Your task to perform on an android device: uninstall "VLC for Android" Image 0: 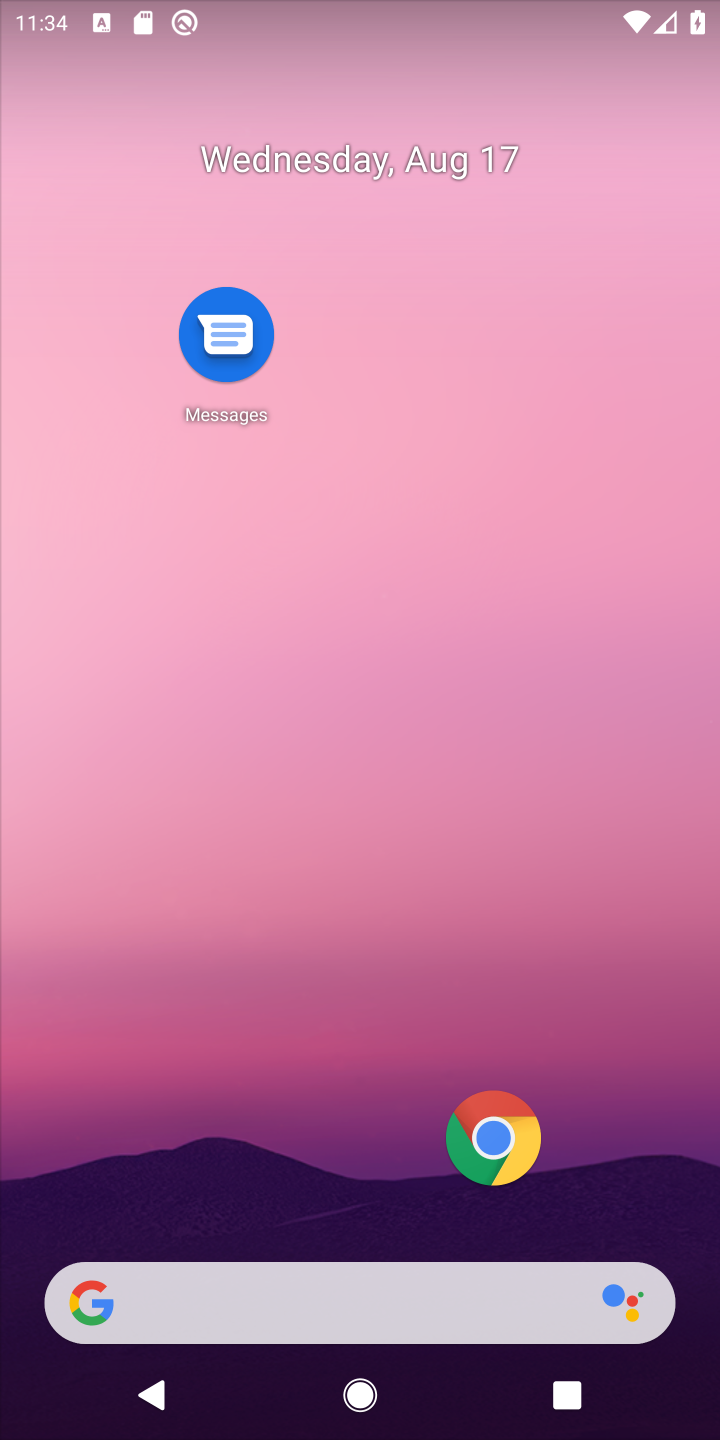
Step 0: drag from (403, 933) to (446, 492)
Your task to perform on an android device: uninstall "VLC for Android" Image 1: 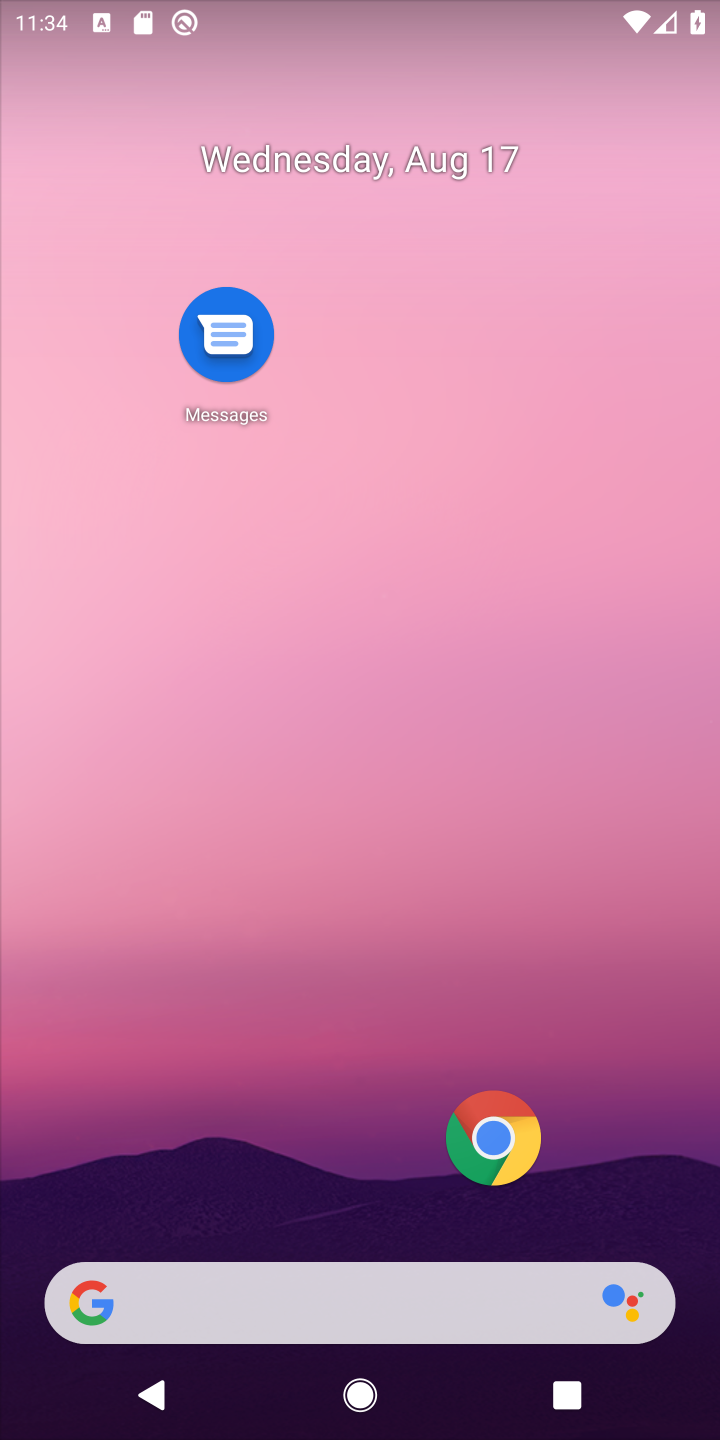
Step 1: drag from (355, 1047) to (411, 374)
Your task to perform on an android device: uninstall "VLC for Android" Image 2: 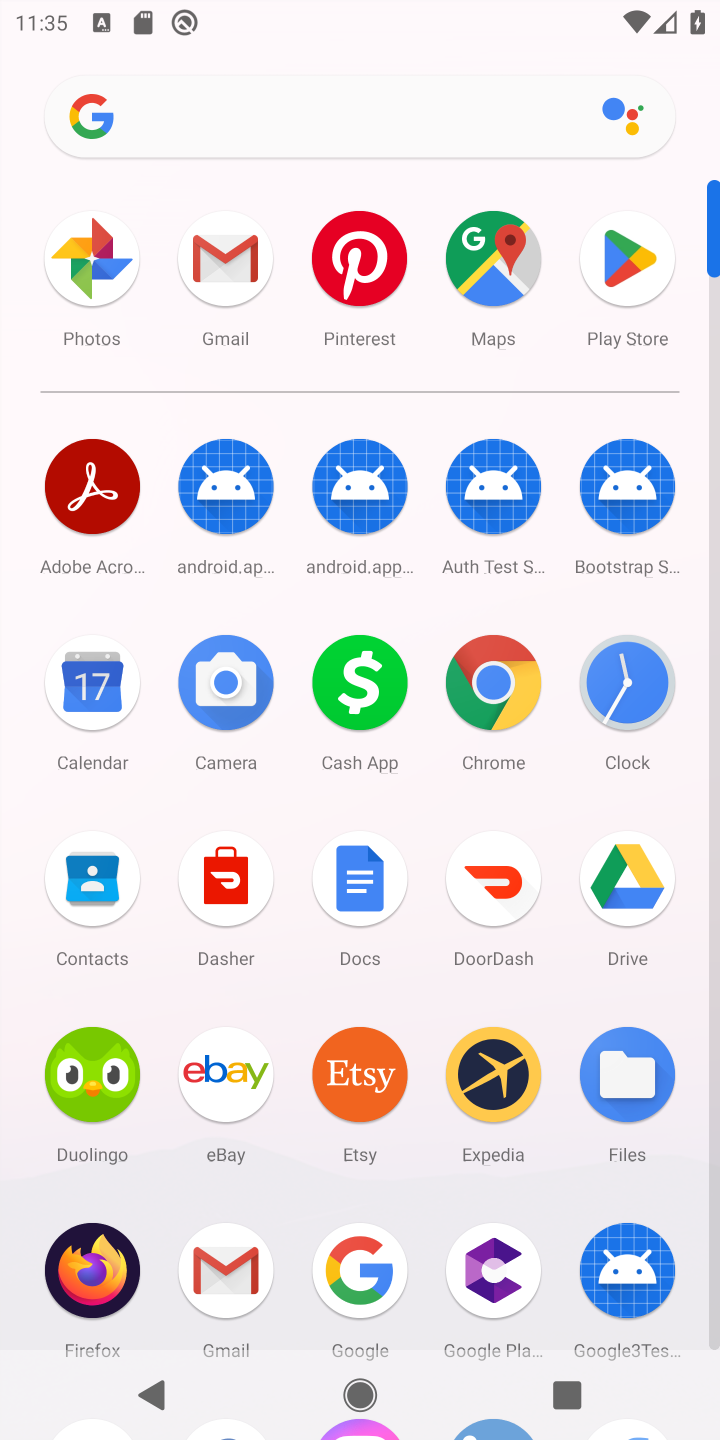
Step 2: click (623, 273)
Your task to perform on an android device: uninstall "VLC for Android" Image 3: 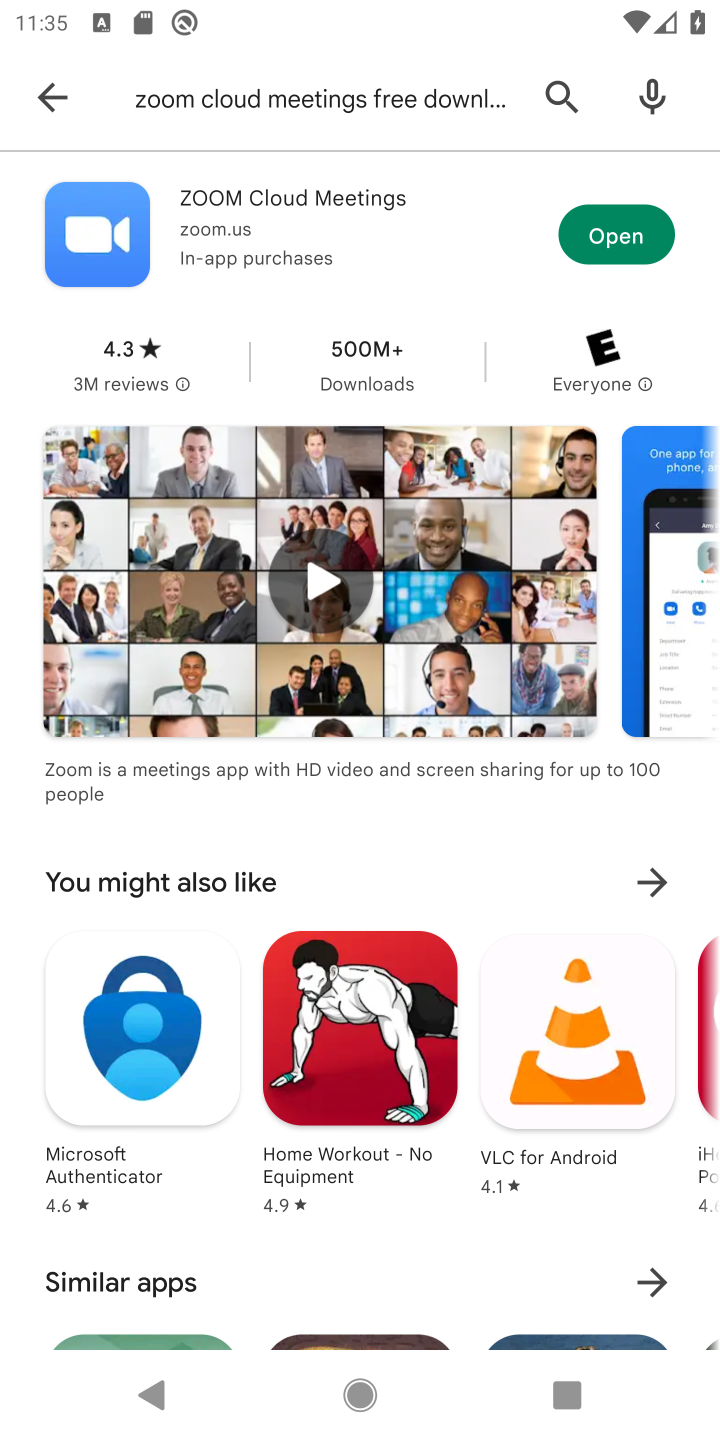
Step 3: click (48, 100)
Your task to perform on an android device: uninstall "VLC for Android" Image 4: 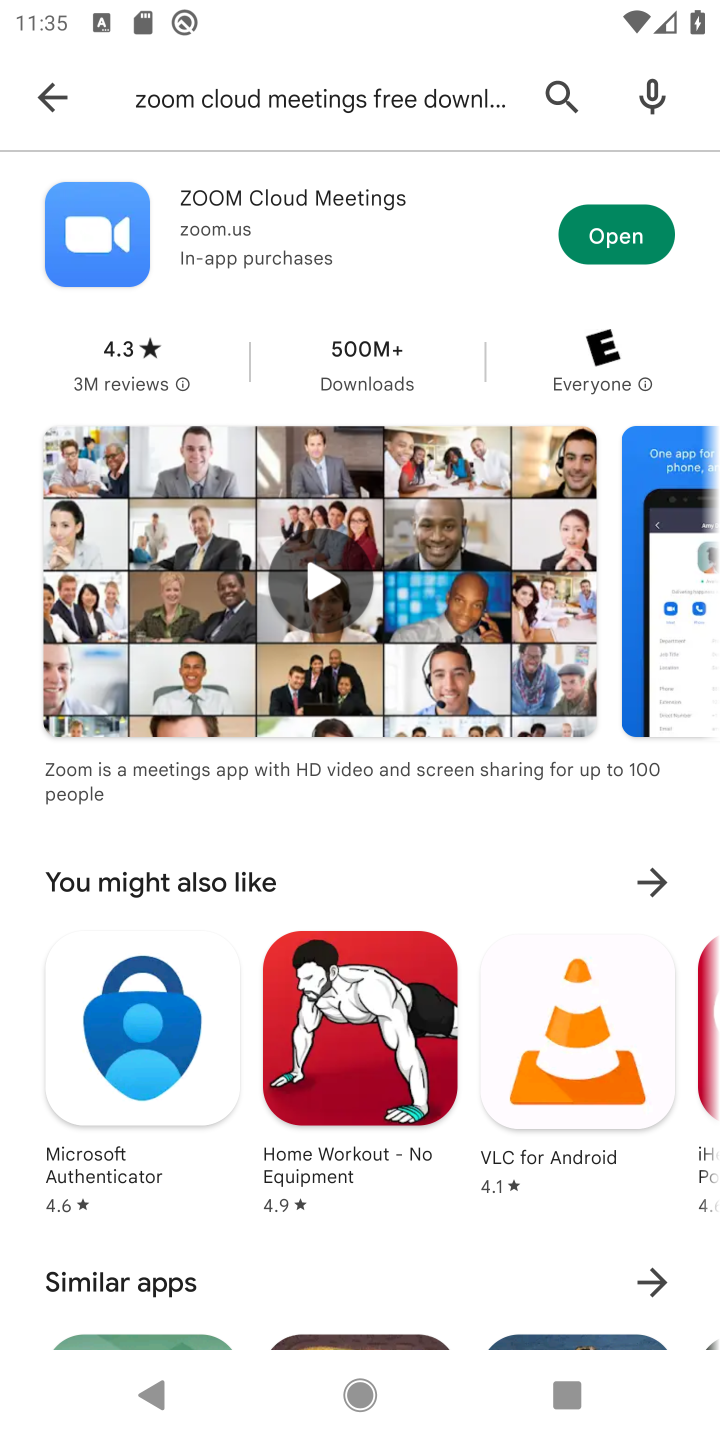
Step 4: click (570, 104)
Your task to perform on an android device: uninstall "VLC for Android" Image 5: 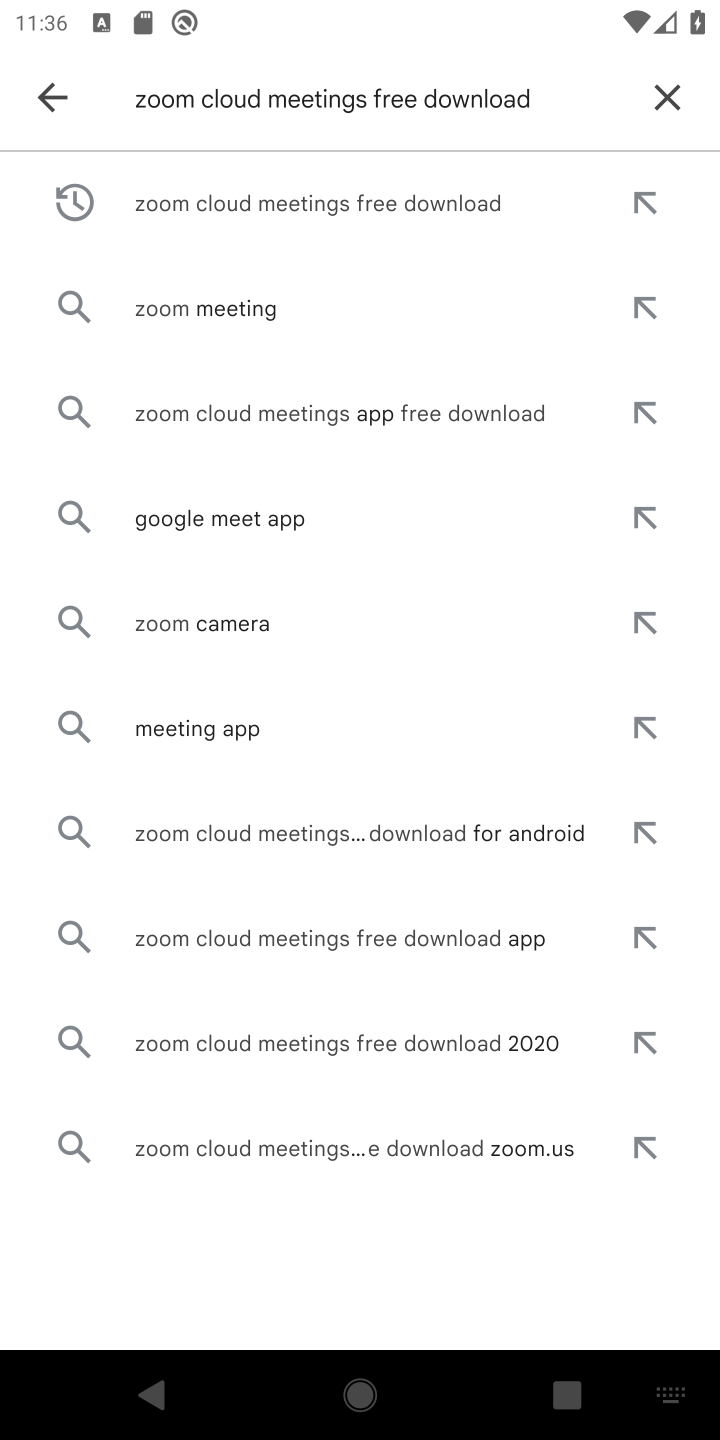
Step 5: click (662, 111)
Your task to perform on an android device: uninstall "VLC for Android" Image 6: 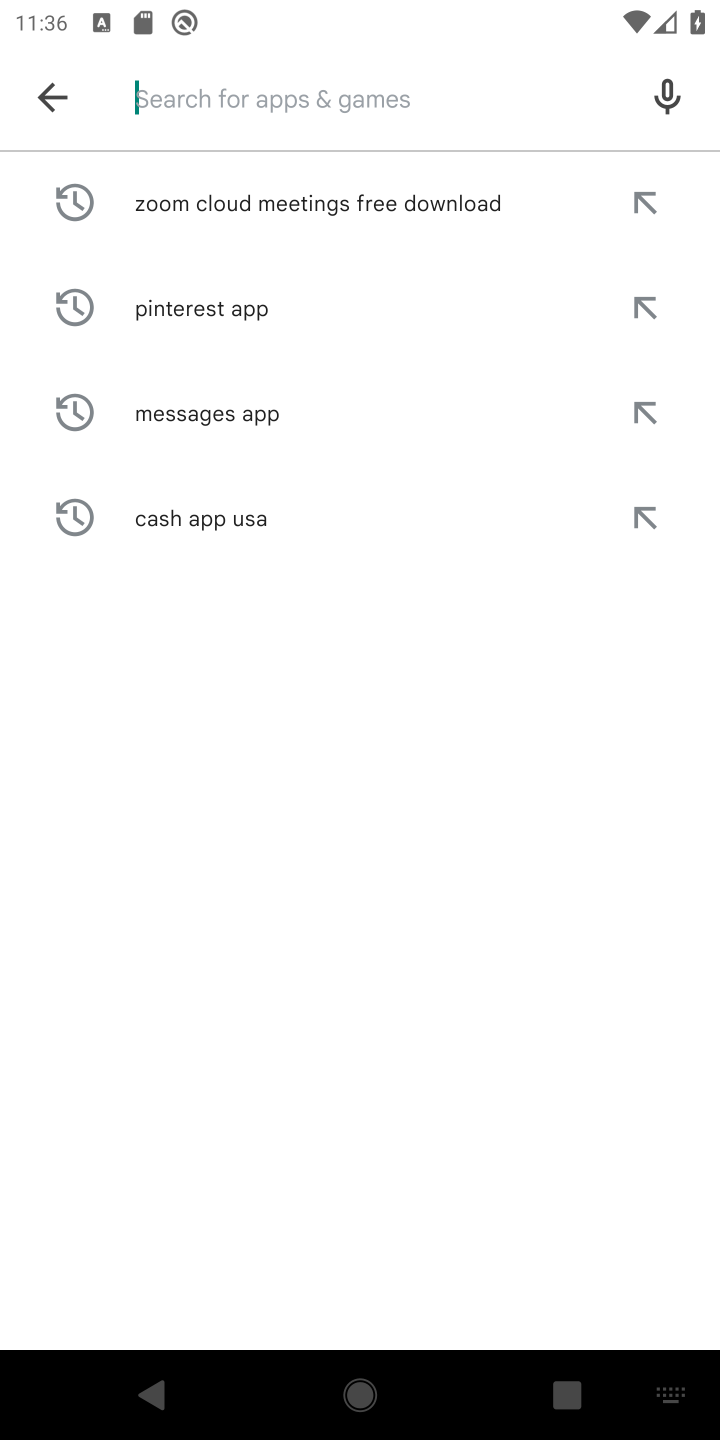
Step 6: click (296, 104)
Your task to perform on an android device: uninstall "VLC for Android" Image 7: 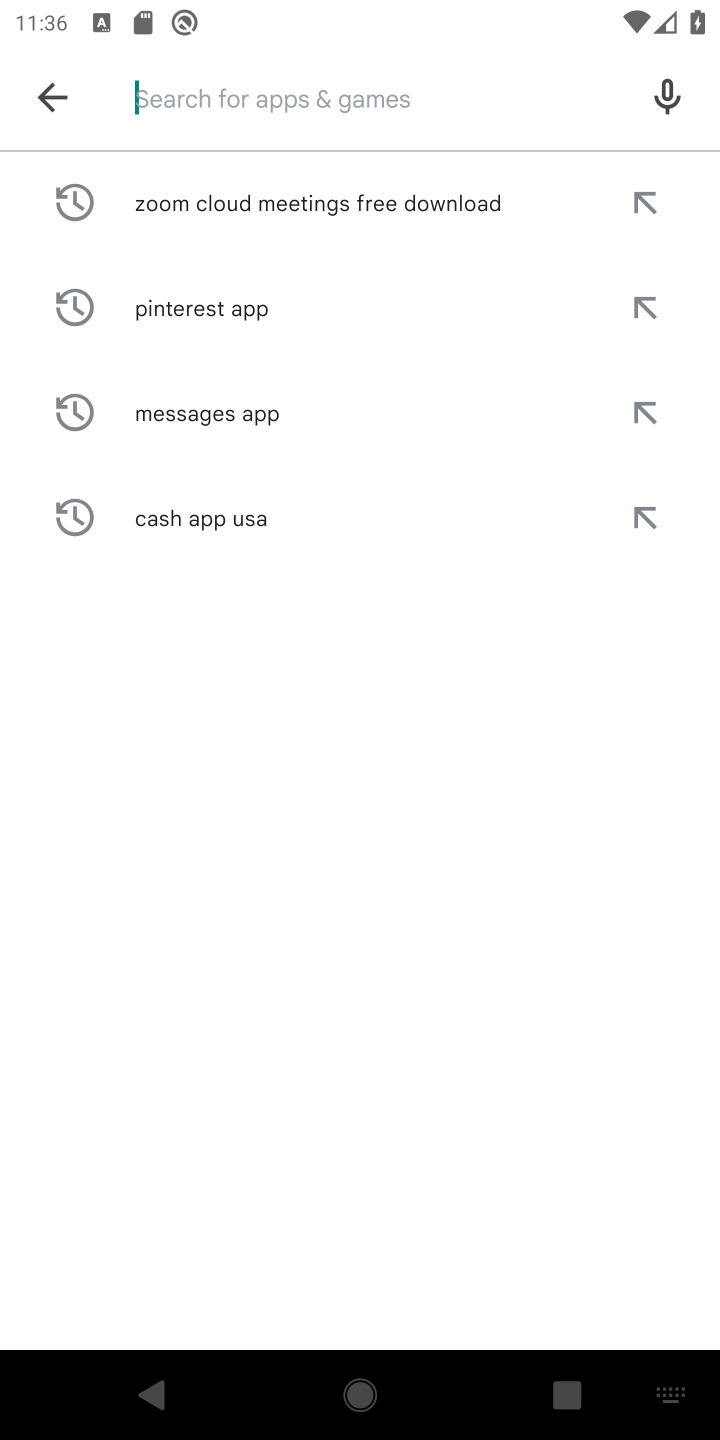
Step 7: type ""VLC for Android "
Your task to perform on an android device: uninstall "VLC for Android" Image 8: 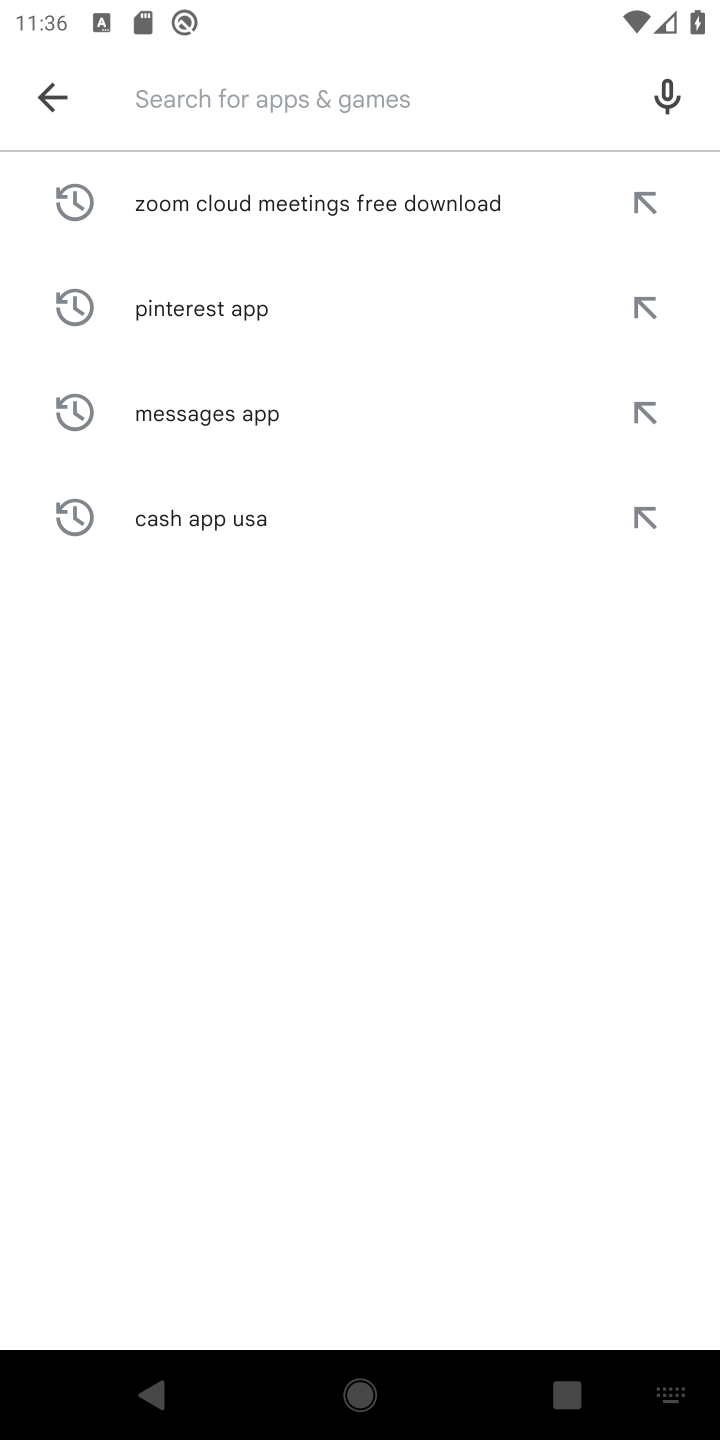
Step 8: click (371, 76)
Your task to perform on an android device: uninstall "VLC for Android" Image 9: 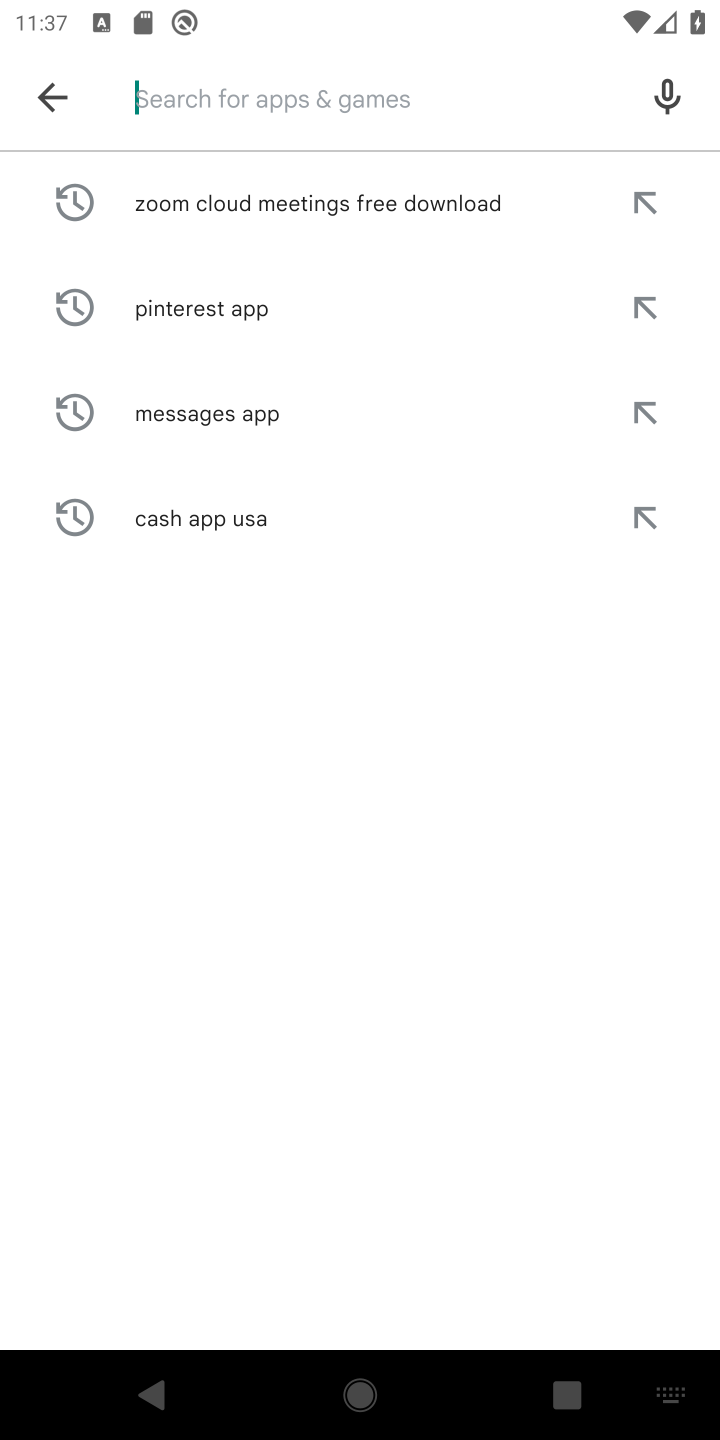
Step 9: type "vlc "
Your task to perform on an android device: uninstall "VLC for Android" Image 10: 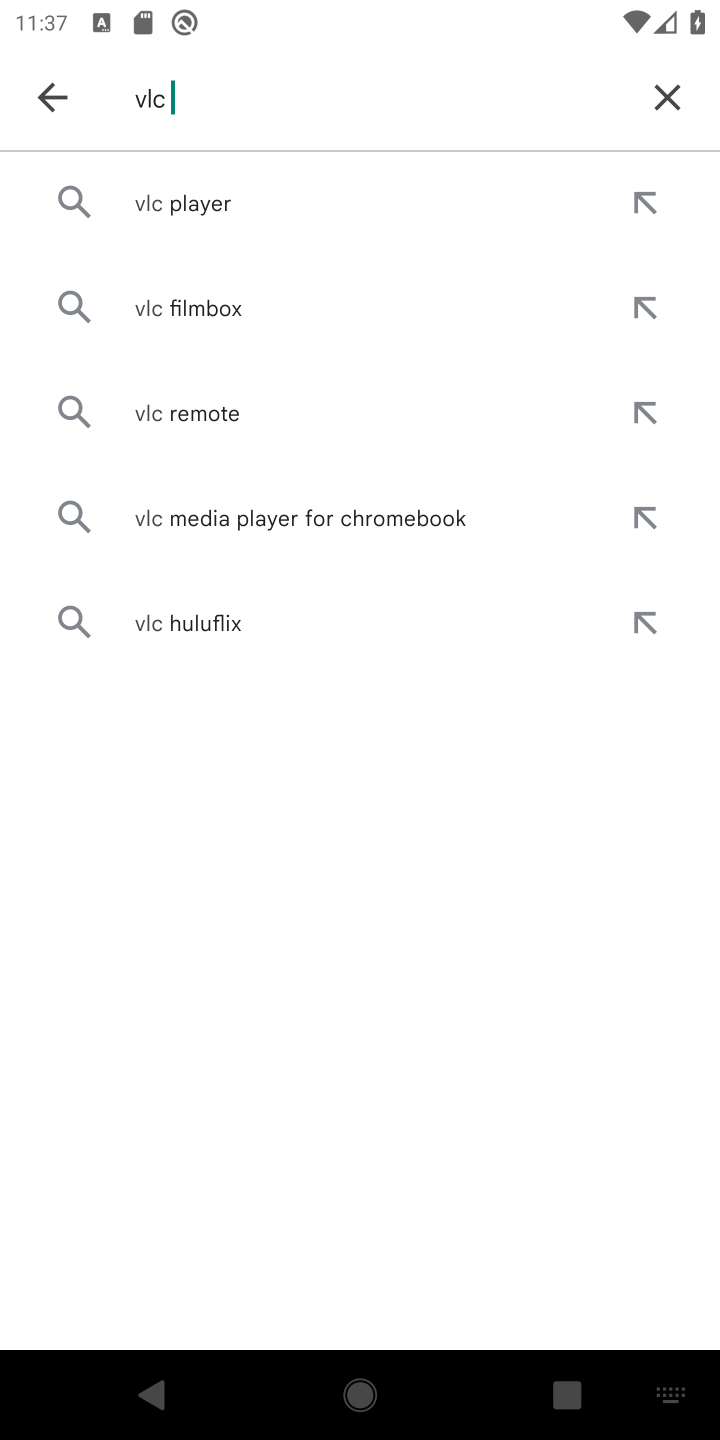
Step 10: click (247, 200)
Your task to perform on an android device: uninstall "VLC for Android" Image 11: 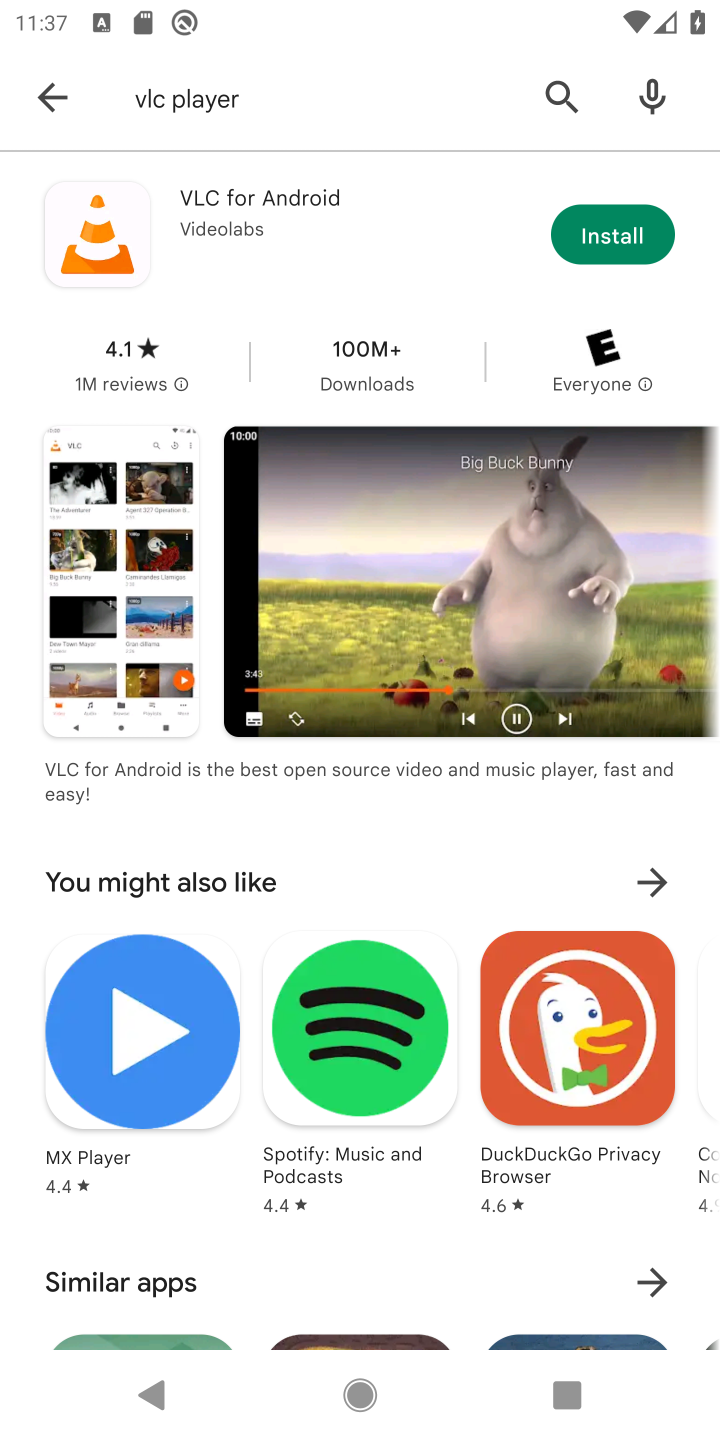
Step 11: click (628, 232)
Your task to perform on an android device: uninstall "VLC for Android" Image 12: 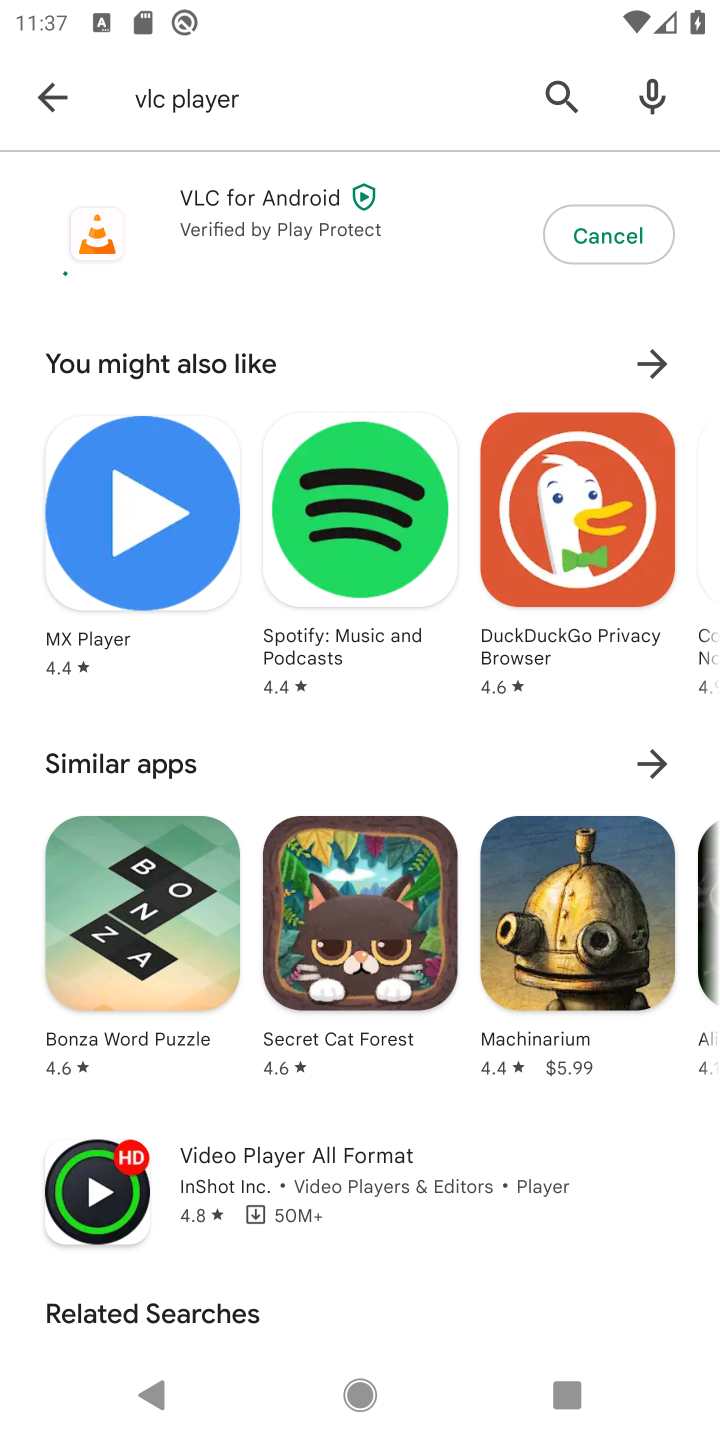
Step 12: click (594, 230)
Your task to perform on an android device: uninstall "VLC for Android" Image 13: 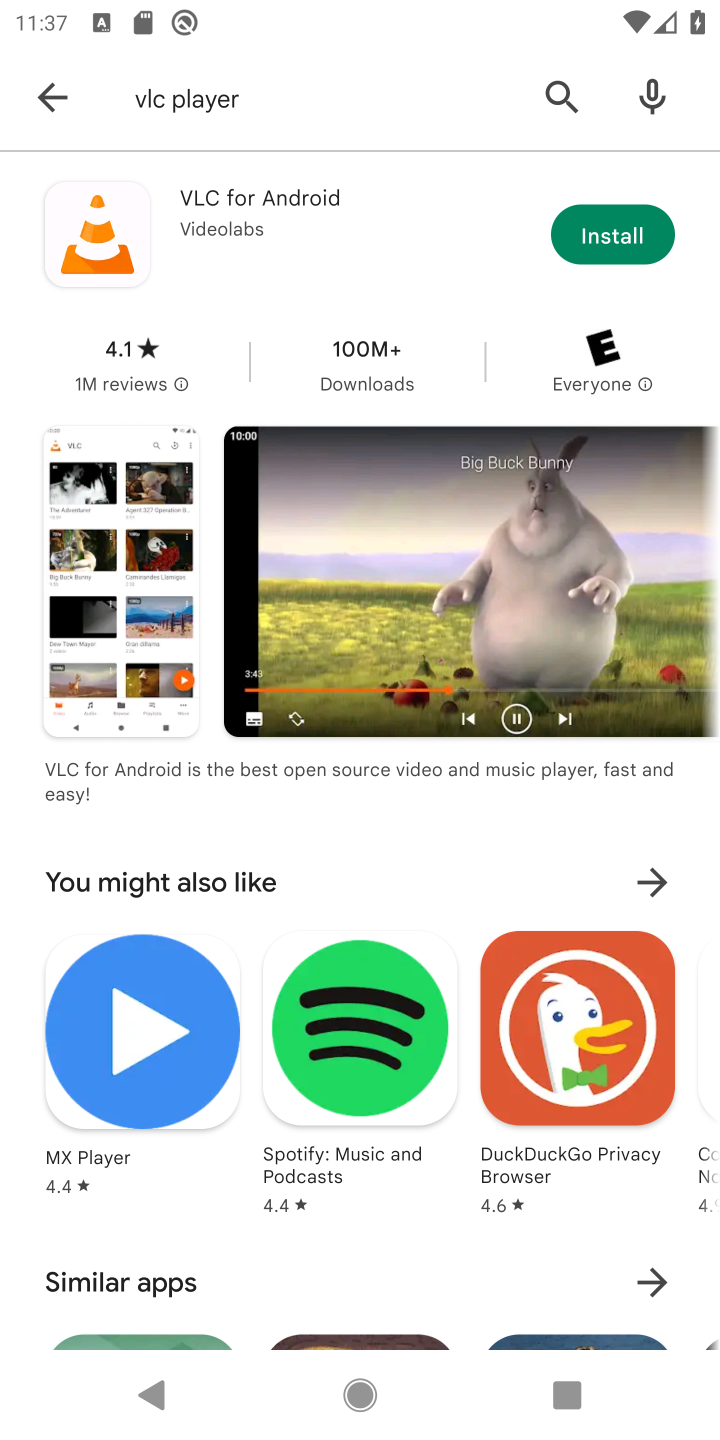
Step 13: click (271, 219)
Your task to perform on an android device: uninstall "VLC for Android" Image 14: 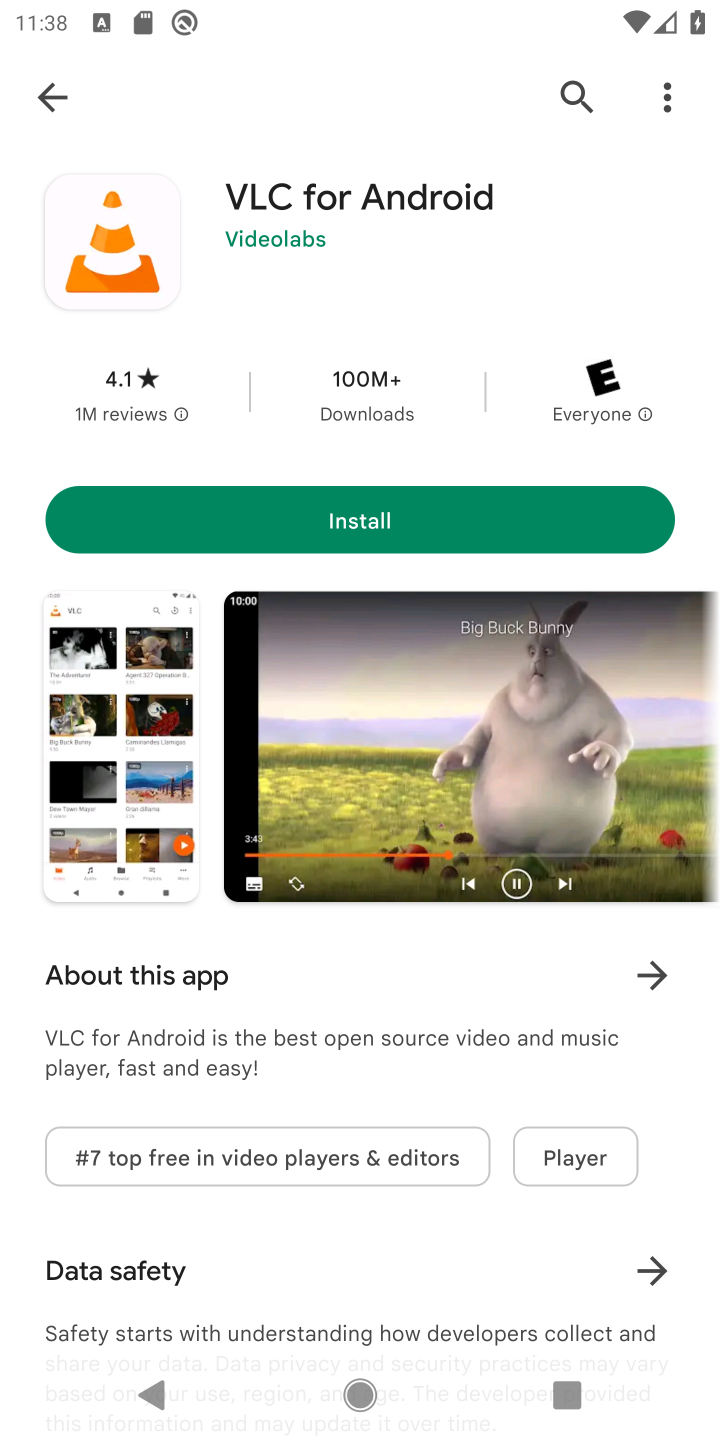
Step 14: task complete